Your task to perform on an android device: Open CNN.com Image 0: 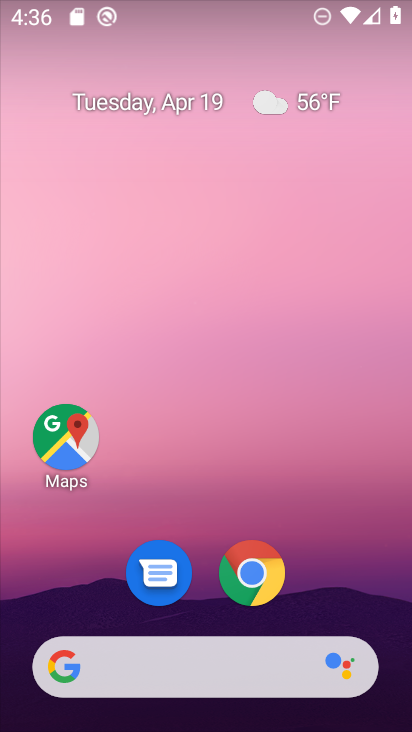
Step 0: click (258, 577)
Your task to perform on an android device: Open CNN.com Image 1: 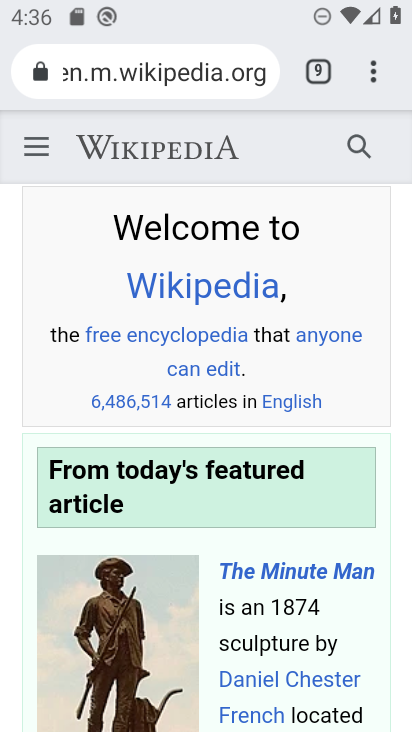
Step 1: click (225, 84)
Your task to perform on an android device: Open CNN.com Image 2: 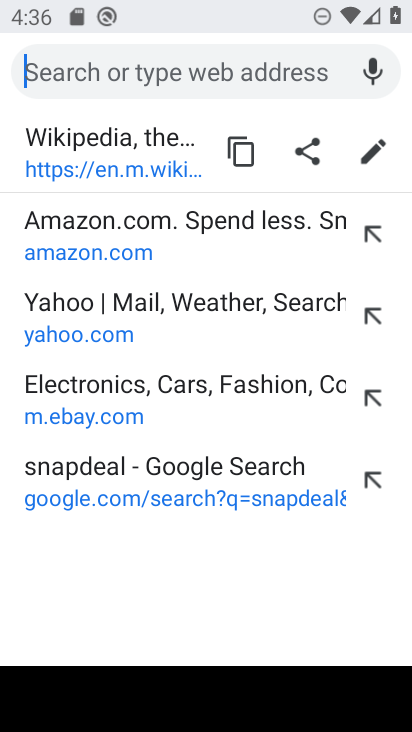
Step 2: type "cnn.com"
Your task to perform on an android device: Open CNN.com Image 3: 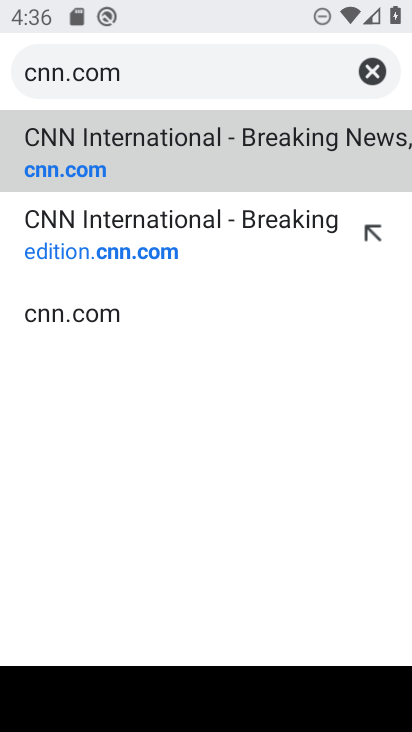
Step 3: click (96, 322)
Your task to perform on an android device: Open CNN.com Image 4: 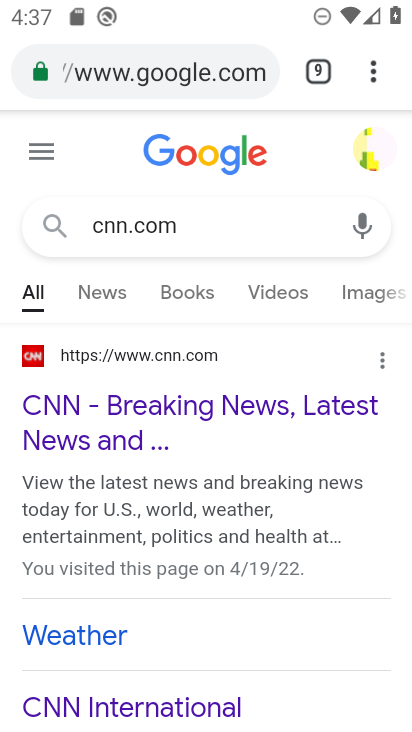
Step 4: click (104, 353)
Your task to perform on an android device: Open CNN.com Image 5: 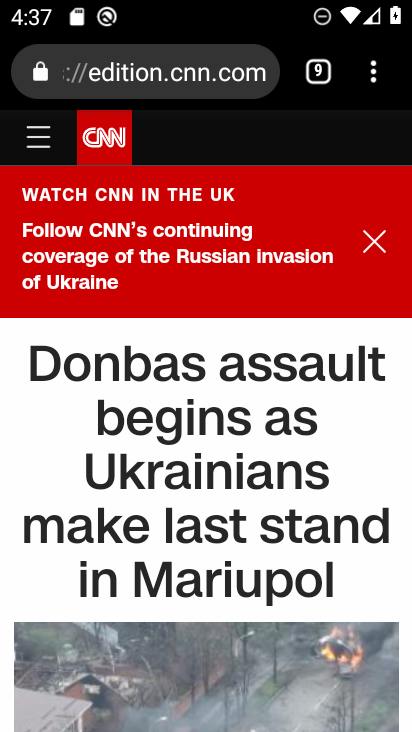
Step 5: task complete